Your task to perform on an android device: change the clock display to analog Image 0: 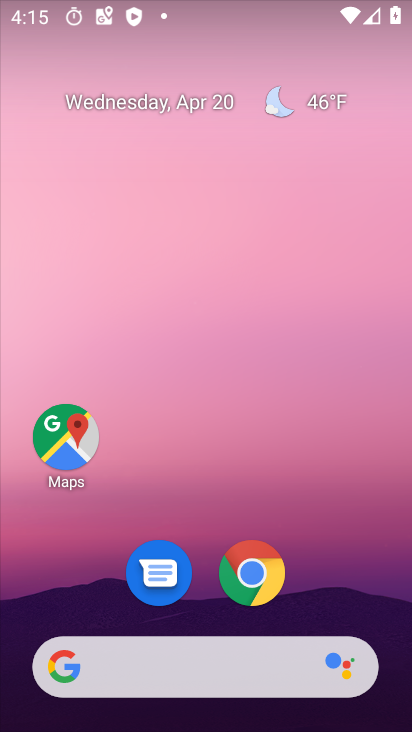
Step 0: click (369, 175)
Your task to perform on an android device: change the clock display to analog Image 1: 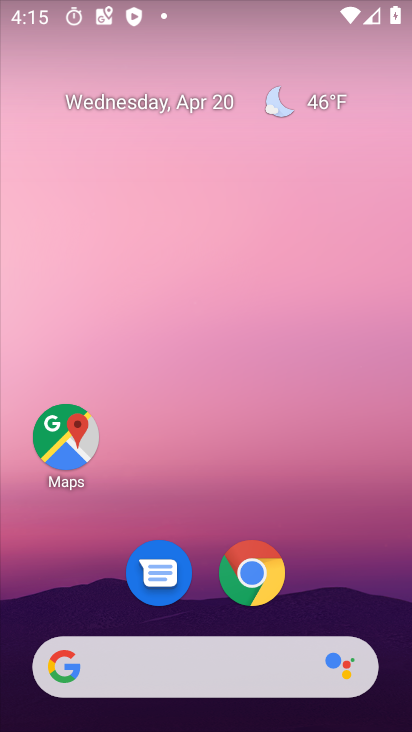
Step 1: drag from (390, 451) to (407, 56)
Your task to perform on an android device: change the clock display to analog Image 2: 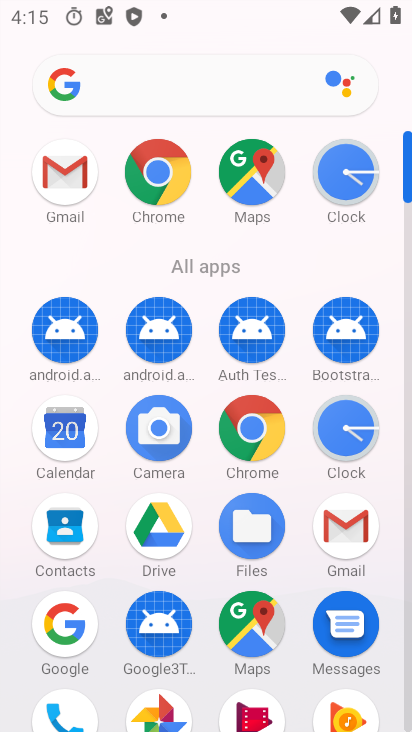
Step 2: click (336, 426)
Your task to perform on an android device: change the clock display to analog Image 3: 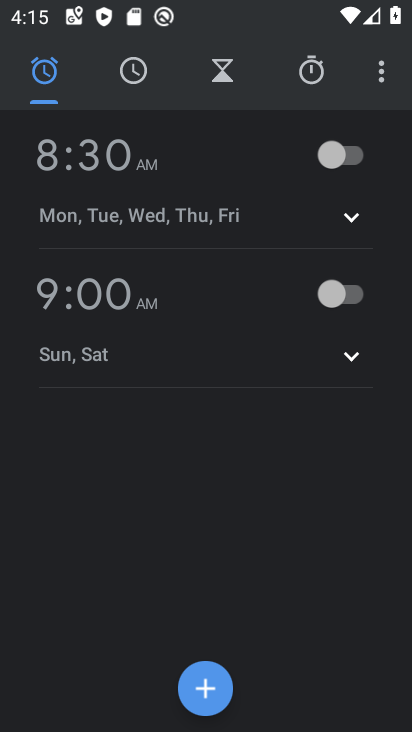
Step 3: click (377, 71)
Your task to perform on an android device: change the clock display to analog Image 4: 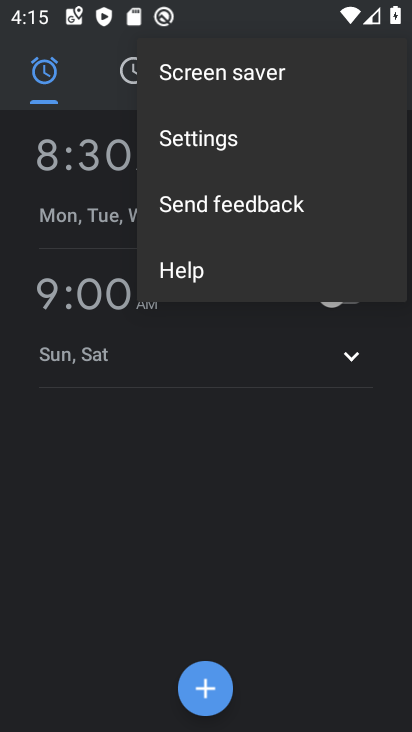
Step 4: click (166, 141)
Your task to perform on an android device: change the clock display to analog Image 5: 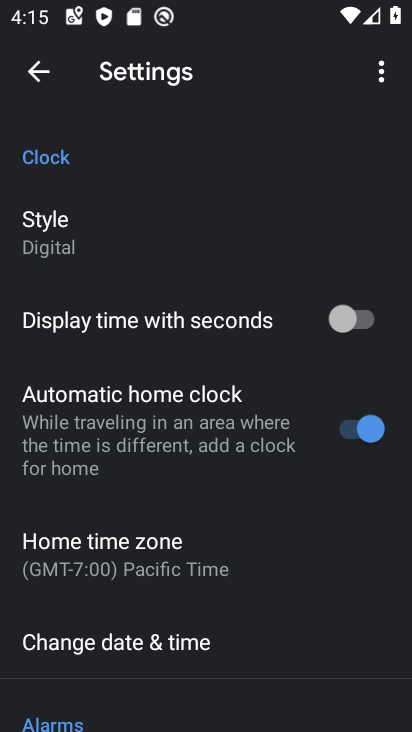
Step 5: click (65, 239)
Your task to perform on an android device: change the clock display to analog Image 6: 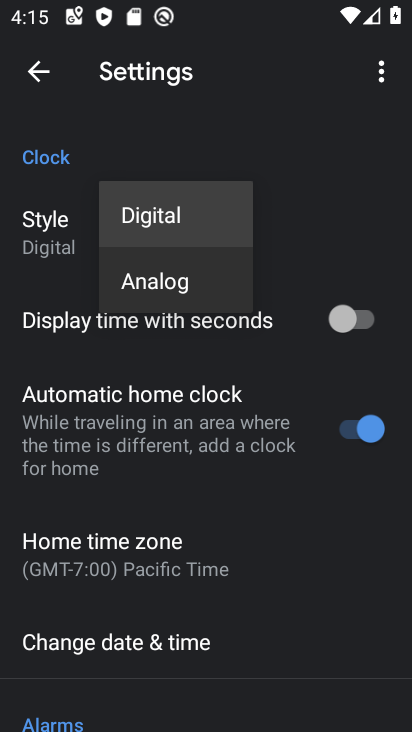
Step 6: click (131, 271)
Your task to perform on an android device: change the clock display to analog Image 7: 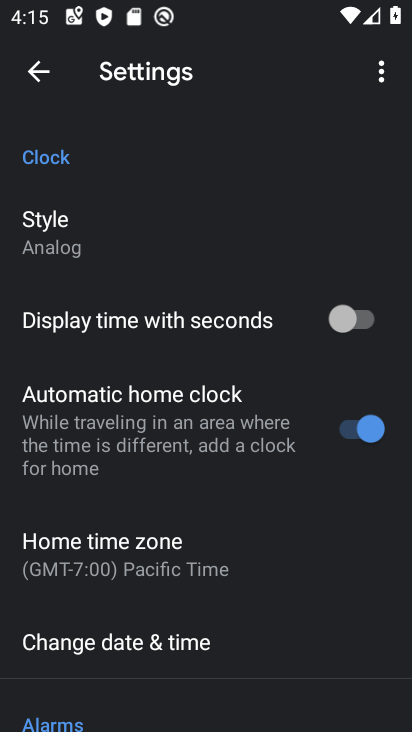
Step 7: task complete